Your task to perform on an android device: What's the weather going to be tomorrow? Image 0: 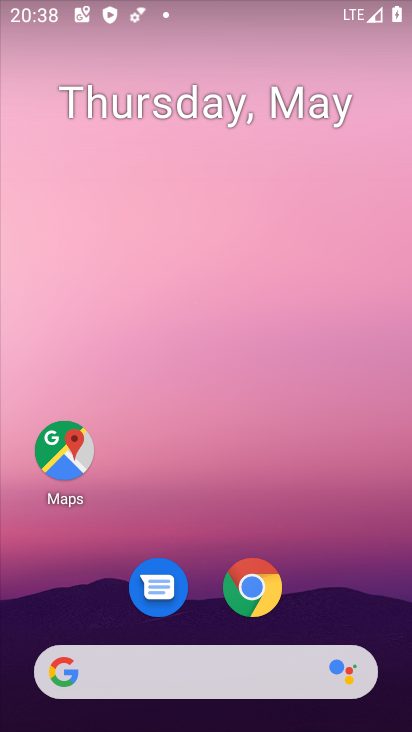
Step 0: click (142, 686)
Your task to perform on an android device: What's the weather going to be tomorrow? Image 1: 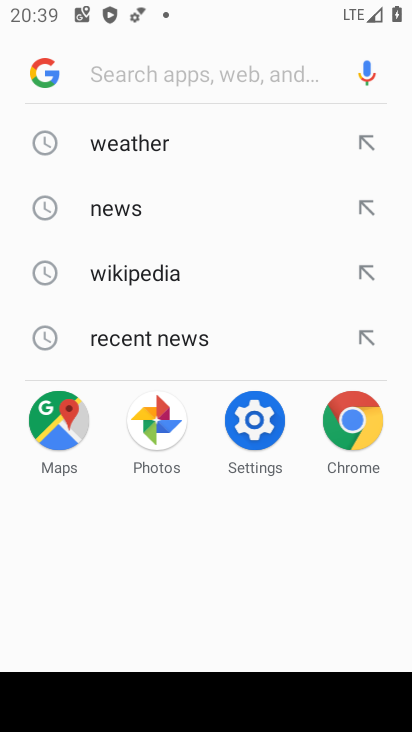
Step 1: type "weather tomorrow"
Your task to perform on an android device: What's the weather going to be tomorrow? Image 2: 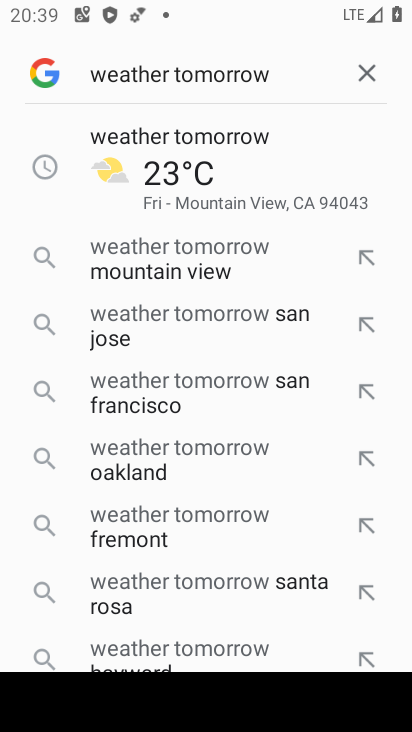
Step 2: click (251, 129)
Your task to perform on an android device: What's the weather going to be tomorrow? Image 3: 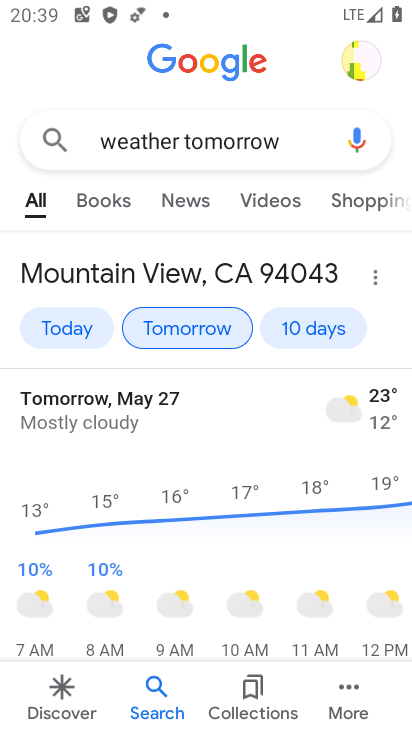
Step 3: task complete